Your task to perform on an android device: turn vacation reply on in the gmail app Image 0: 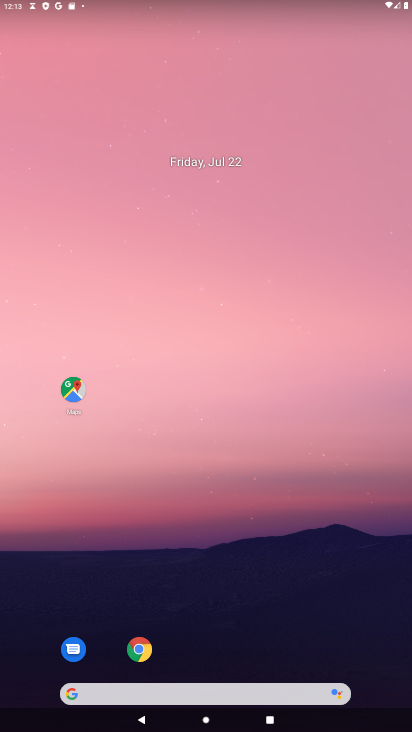
Step 0: click (327, 636)
Your task to perform on an android device: turn vacation reply on in the gmail app Image 1: 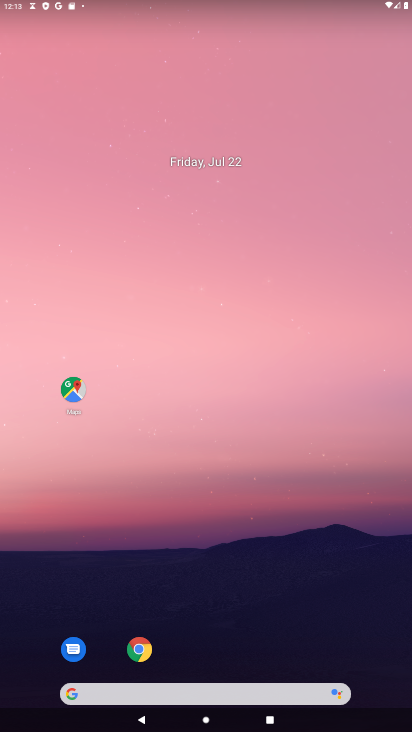
Step 1: drag from (327, 636) to (218, 224)
Your task to perform on an android device: turn vacation reply on in the gmail app Image 2: 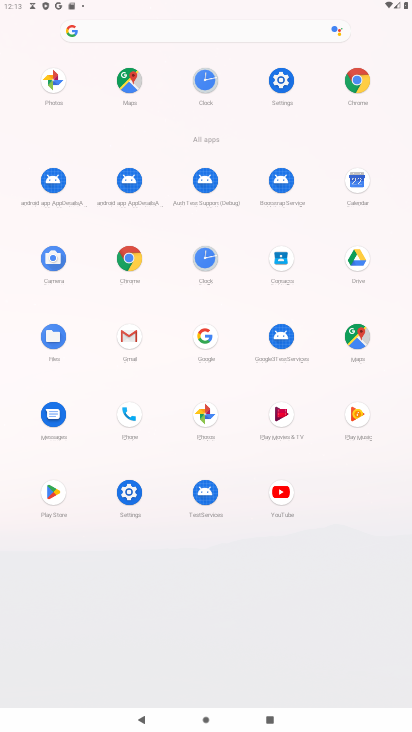
Step 2: click (130, 337)
Your task to perform on an android device: turn vacation reply on in the gmail app Image 3: 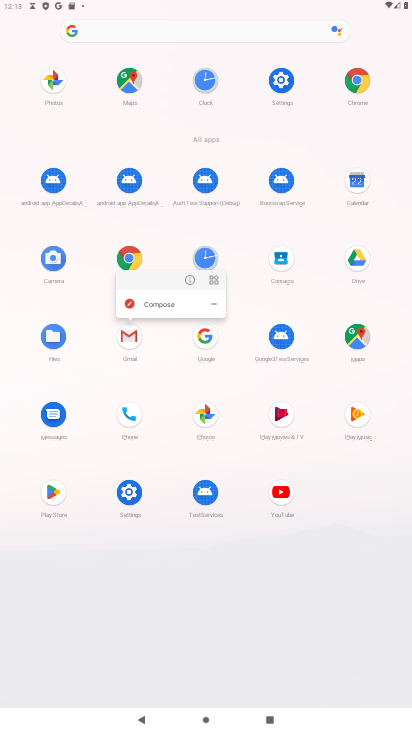
Step 3: click (130, 337)
Your task to perform on an android device: turn vacation reply on in the gmail app Image 4: 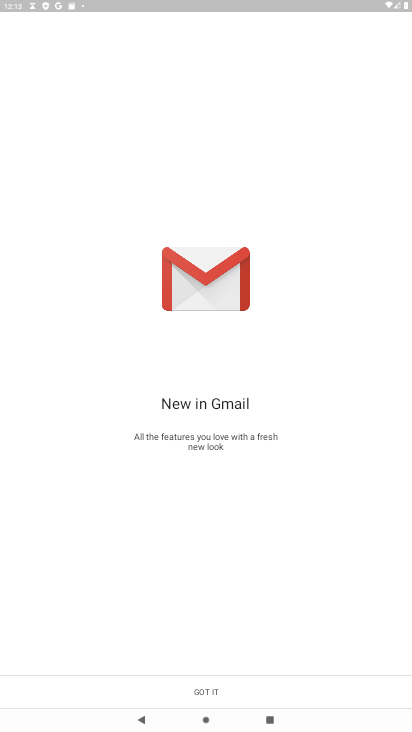
Step 4: click (257, 692)
Your task to perform on an android device: turn vacation reply on in the gmail app Image 5: 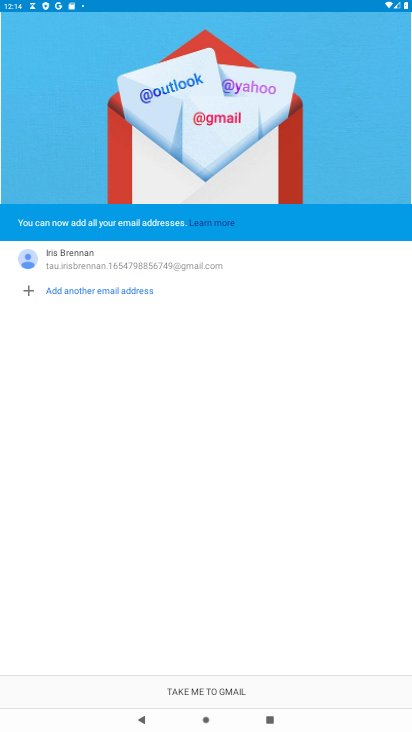
Step 5: click (257, 692)
Your task to perform on an android device: turn vacation reply on in the gmail app Image 6: 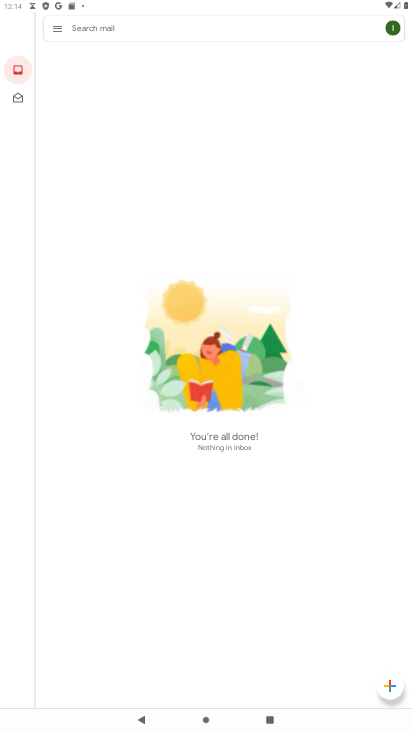
Step 6: click (49, 30)
Your task to perform on an android device: turn vacation reply on in the gmail app Image 7: 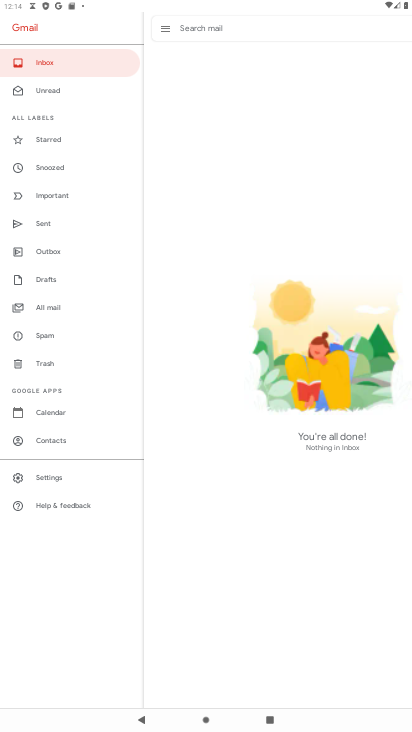
Step 7: click (75, 474)
Your task to perform on an android device: turn vacation reply on in the gmail app Image 8: 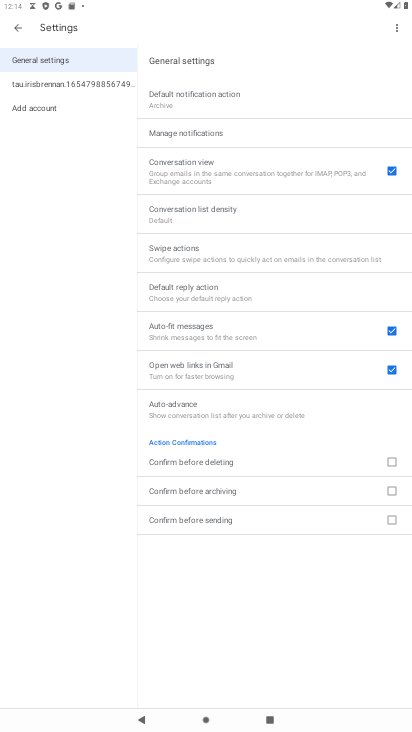
Step 8: click (62, 77)
Your task to perform on an android device: turn vacation reply on in the gmail app Image 9: 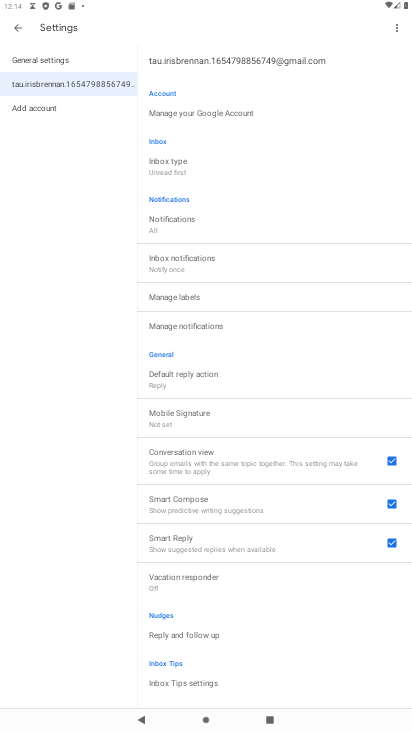
Step 9: click (342, 578)
Your task to perform on an android device: turn vacation reply on in the gmail app Image 10: 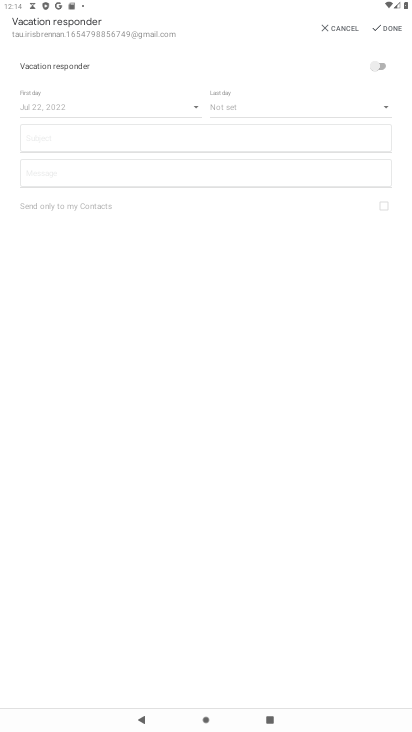
Step 10: click (371, 59)
Your task to perform on an android device: turn vacation reply on in the gmail app Image 11: 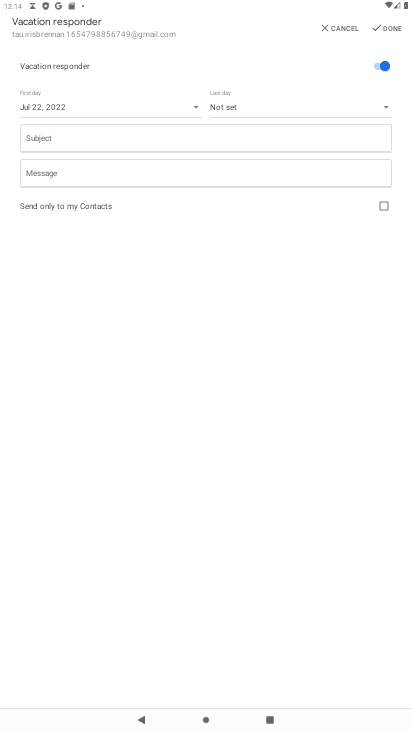
Step 11: click (114, 144)
Your task to perform on an android device: turn vacation reply on in the gmail app Image 12: 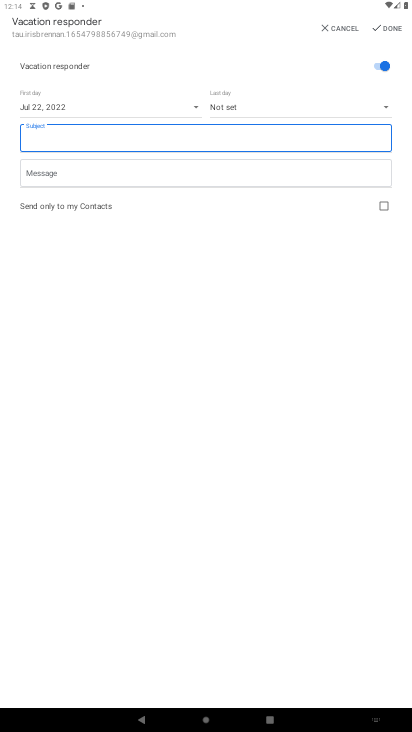
Step 12: type "gg"
Your task to perform on an android device: turn vacation reply on in the gmail app Image 13: 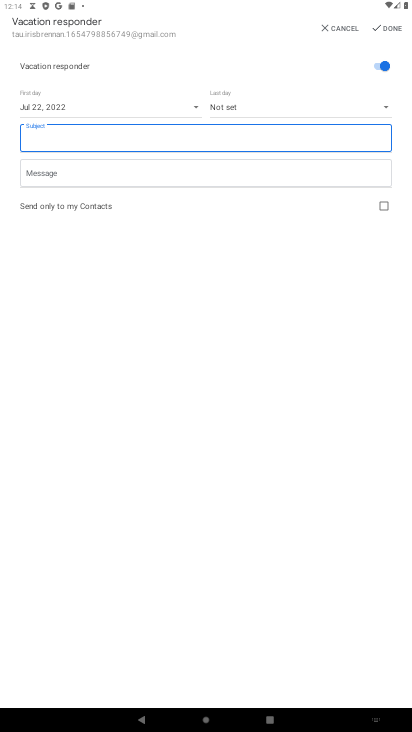
Step 13: click (374, 24)
Your task to perform on an android device: turn vacation reply on in the gmail app Image 14: 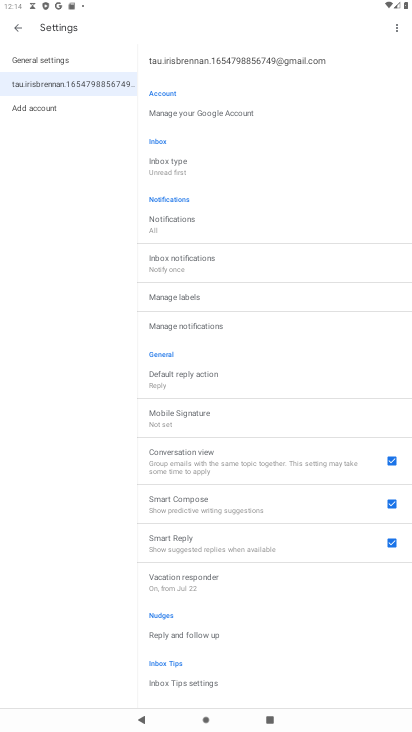
Step 14: task complete